Your task to perform on an android device: Is it going to rain tomorrow? Image 0: 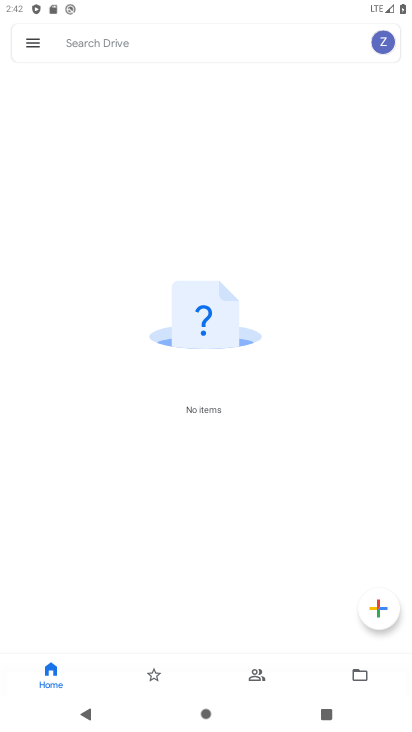
Step 0: press home button
Your task to perform on an android device: Is it going to rain tomorrow? Image 1: 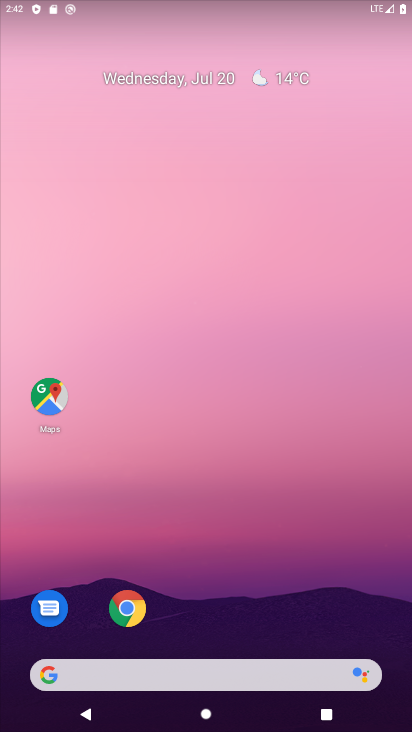
Step 1: drag from (228, 648) to (145, 34)
Your task to perform on an android device: Is it going to rain tomorrow? Image 2: 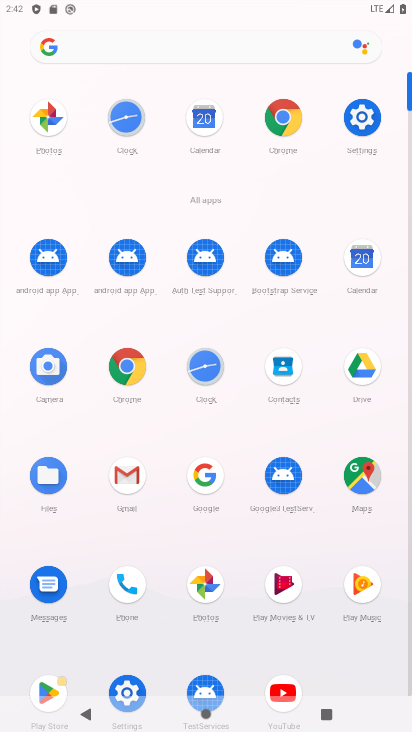
Step 2: click (361, 255)
Your task to perform on an android device: Is it going to rain tomorrow? Image 3: 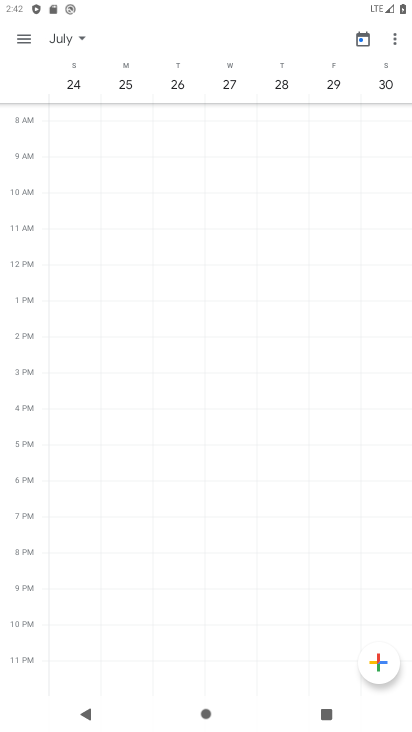
Step 3: click (359, 36)
Your task to perform on an android device: Is it going to rain tomorrow? Image 4: 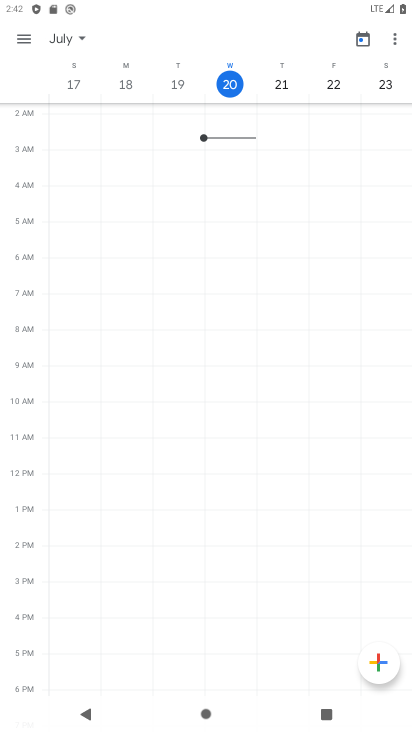
Step 4: click (280, 78)
Your task to perform on an android device: Is it going to rain tomorrow? Image 5: 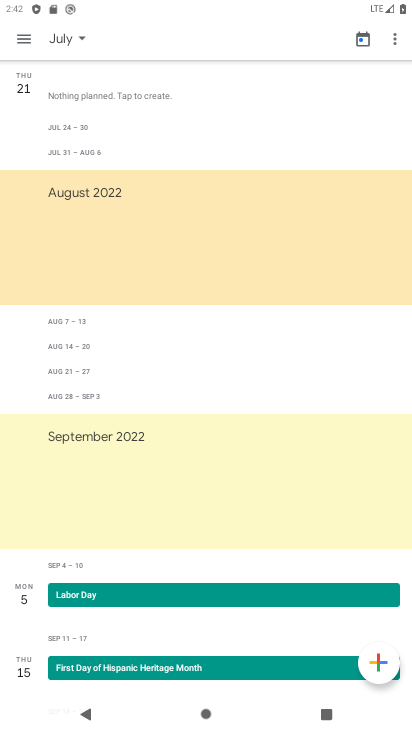
Step 5: task complete